Your task to perform on an android device: Open calendar and show me the first week of next month Image 0: 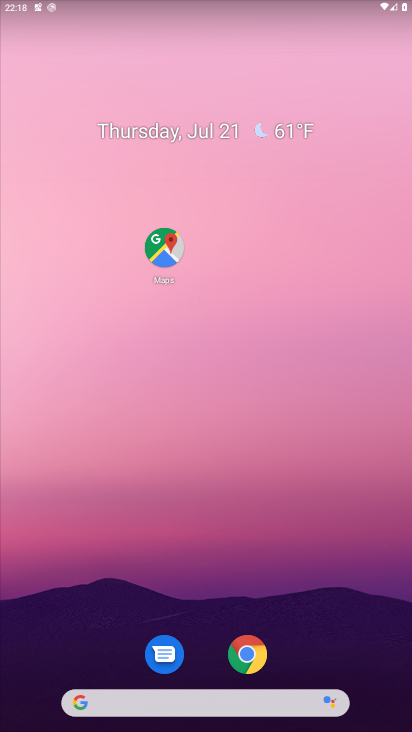
Step 0: drag from (55, 710) to (216, 59)
Your task to perform on an android device: Open calendar and show me the first week of next month Image 1: 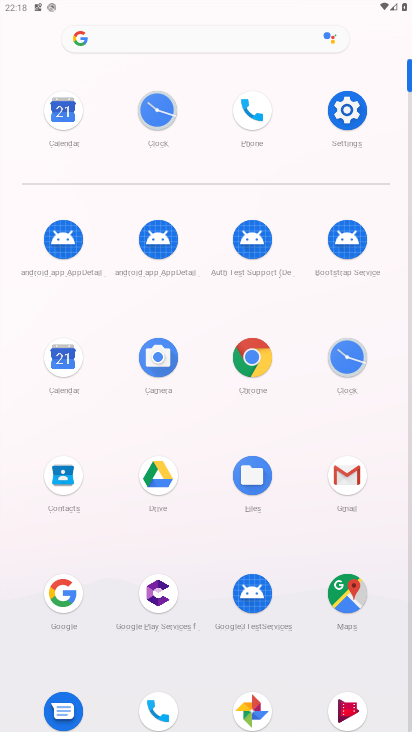
Step 1: click (54, 359)
Your task to perform on an android device: Open calendar and show me the first week of next month Image 2: 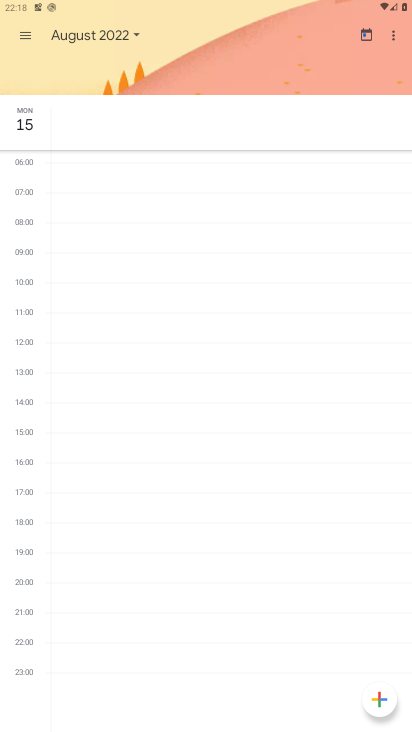
Step 2: click (129, 34)
Your task to perform on an android device: Open calendar and show me the first week of next month Image 3: 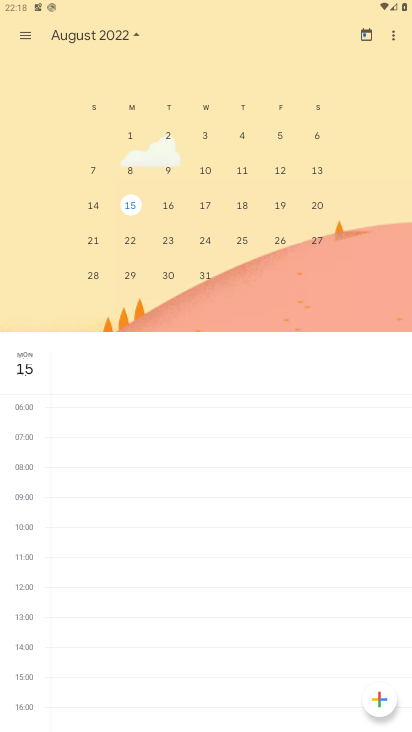
Step 3: task complete